Your task to perform on an android device: Open eBay Image 0: 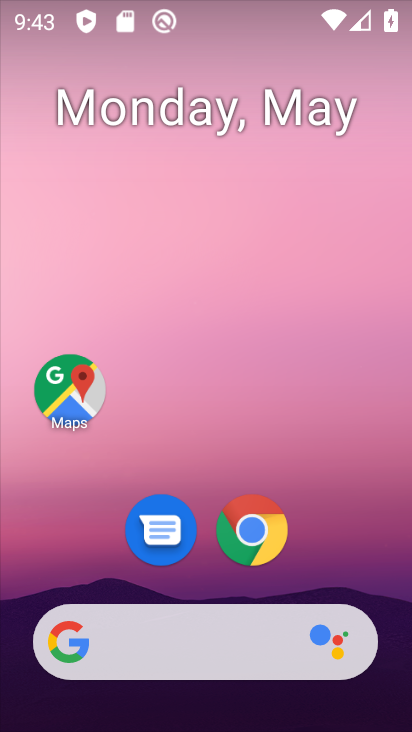
Step 0: drag from (323, 496) to (372, 161)
Your task to perform on an android device: Open eBay Image 1: 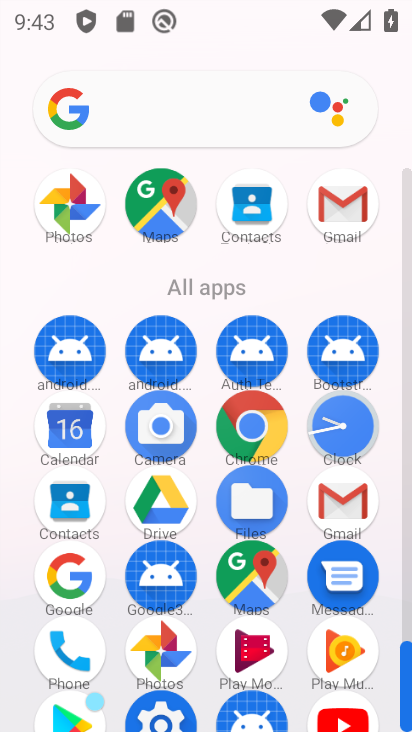
Step 1: click (241, 441)
Your task to perform on an android device: Open eBay Image 2: 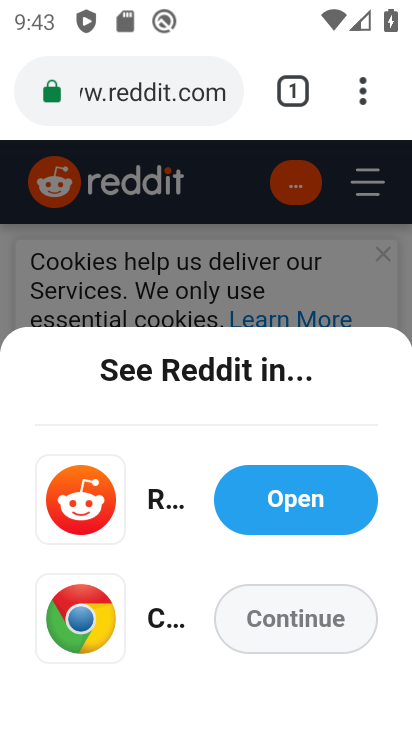
Step 2: click (267, 639)
Your task to perform on an android device: Open eBay Image 3: 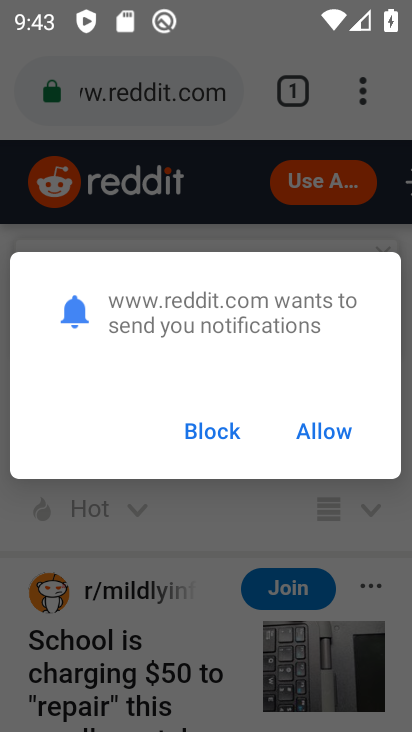
Step 3: click (212, 428)
Your task to perform on an android device: Open eBay Image 4: 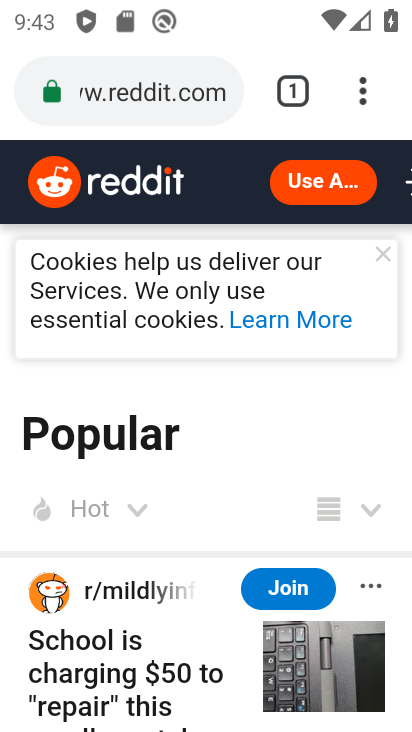
Step 4: click (165, 81)
Your task to perform on an android device: Open eBay Image 5: 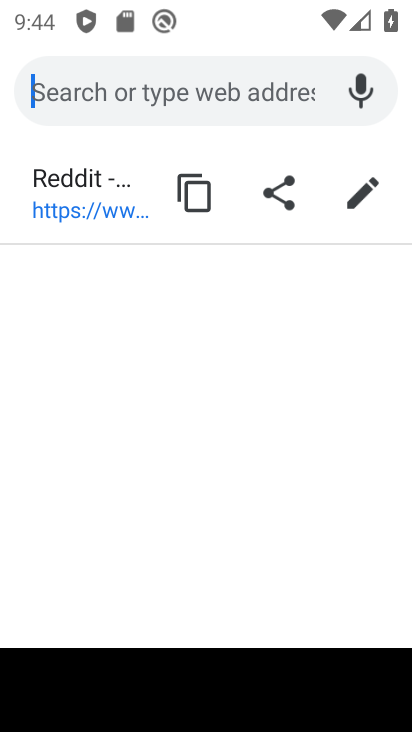
Step 5: type "www.ebay.com"
Your task to perform on an android device: Open eBay Image 6: 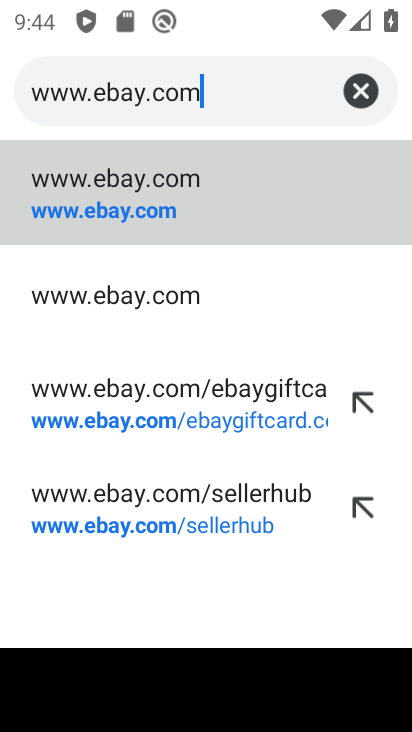
Step 6: click (100, 198)
Your task to perform on an android device: Open eBay Image 7: 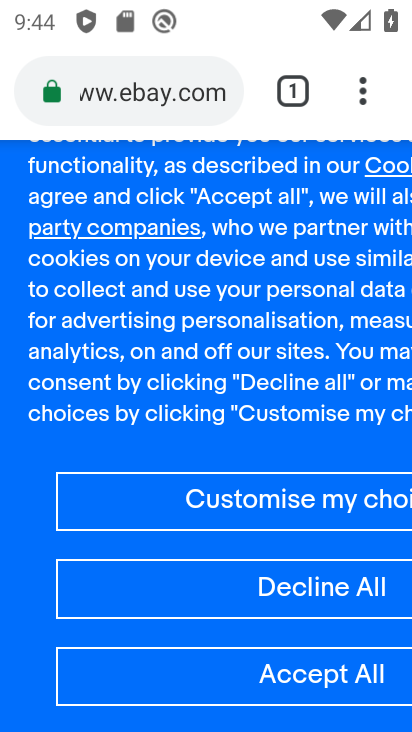
Step 7: task complete